Your task to perform on an android device: open app "Roku - Official Remote Control" (install if not already installed), go to login, and select forgot password Image 0: 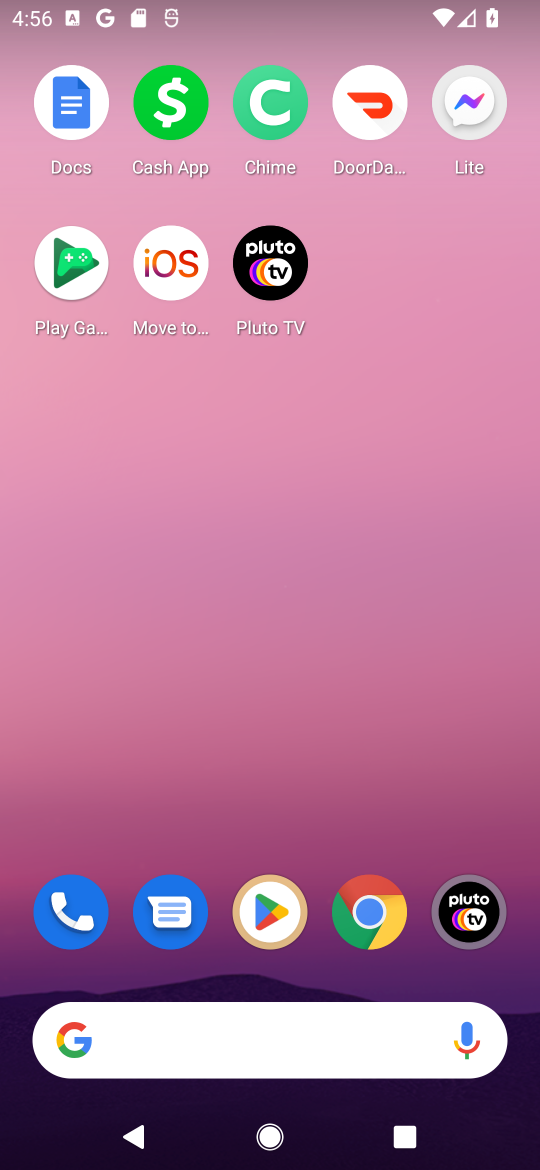
Step 0: drag from (275, 637) to (305, 95)
Your task to perform on an android device: open app "Roku - Official Remote Control" (install if not already installed), go to login, and select forgot password Image 1: 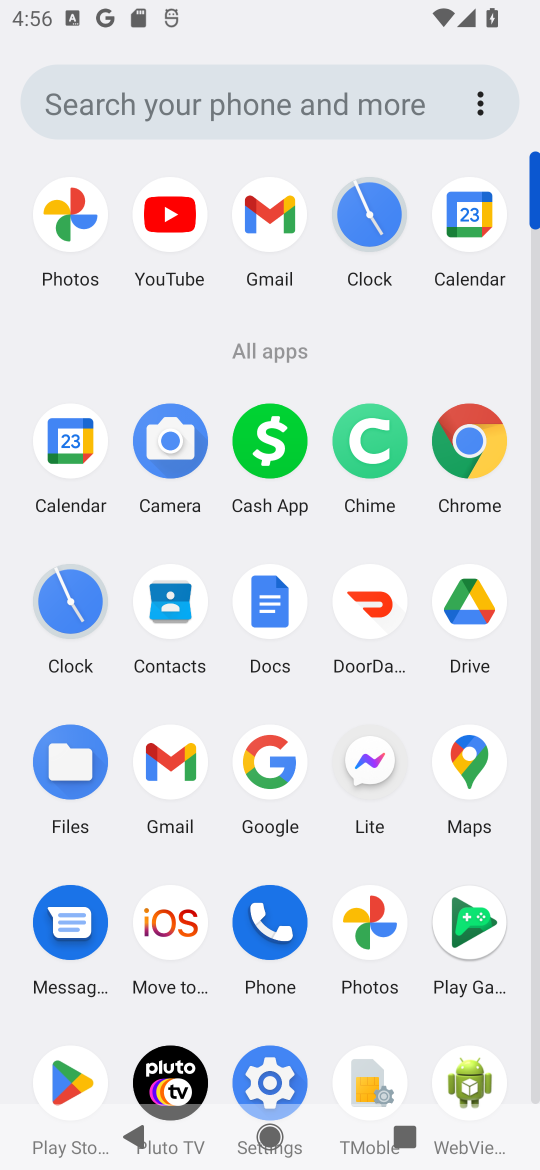
Step 1: click (57, 1071)
Your task to perform on an android device: open app "Roku - Official Remote Control" (install if not already installed), go to login, and select forgot password Image 2: 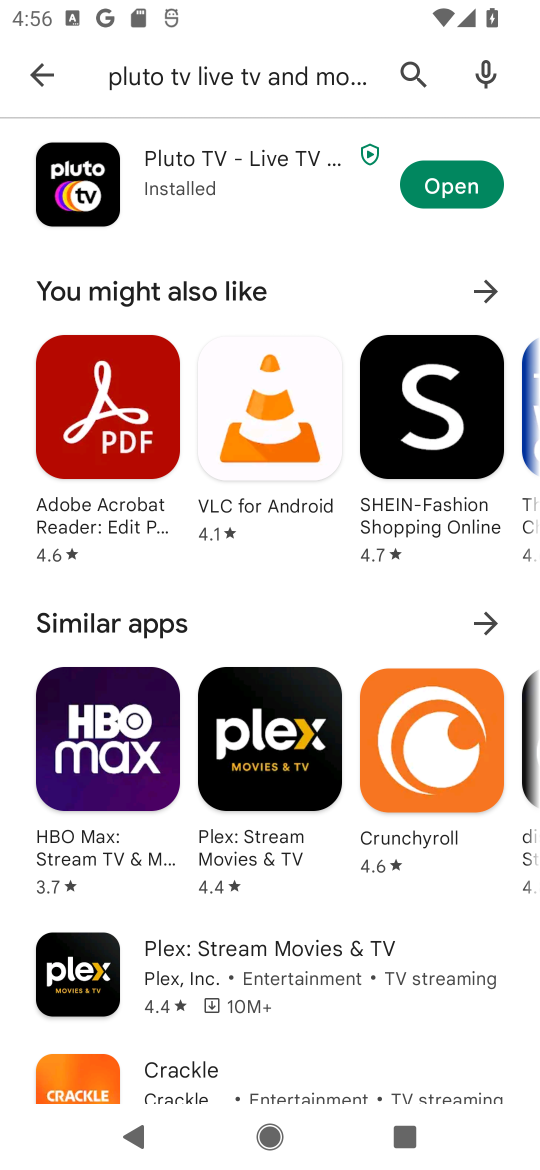
Step 2: click (48, 88)
Your task to perform on an android device: open app "Roku - Official Remote Control" (install if not already installed), go to login, and select forgot password Image 3: 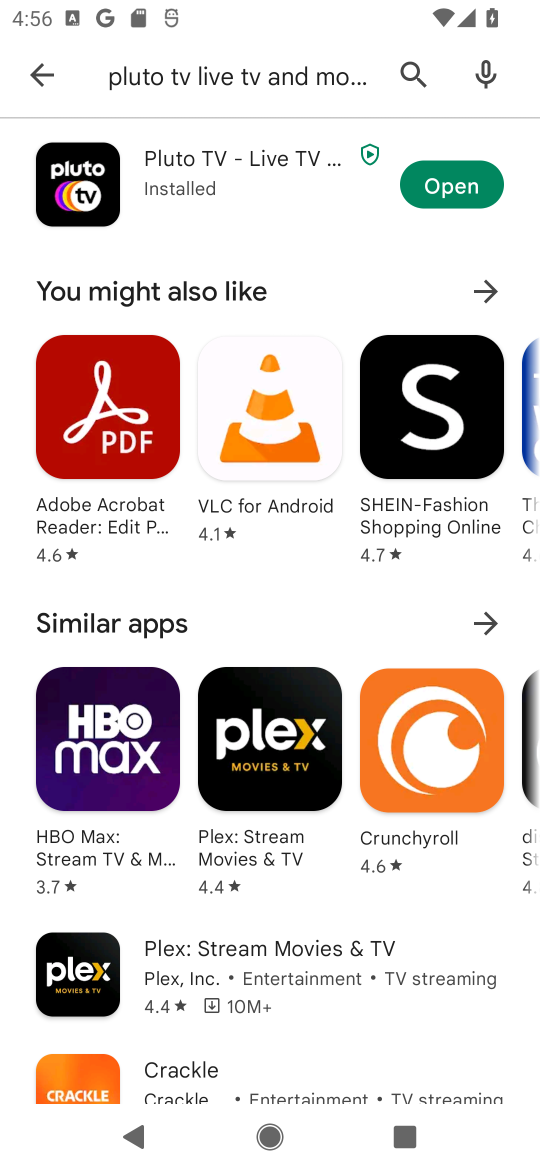
Step 3: click (35, 69)
Your task to perform on an android device: open app "Roku - Official Remote Control" (install if not already installed), go to login, and select forgot password Image 4: 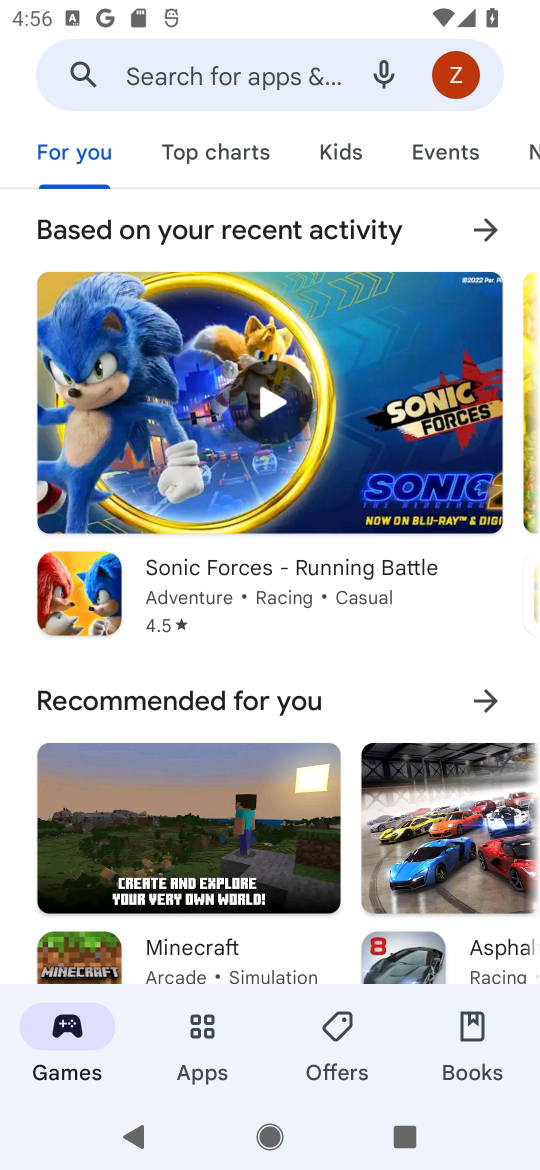
Step 4: click (210, 72)
Your task to perform on an android device: open app "Roku - Official Remote Control" (install if not already installed), go to login, and select forgot password Image 5: 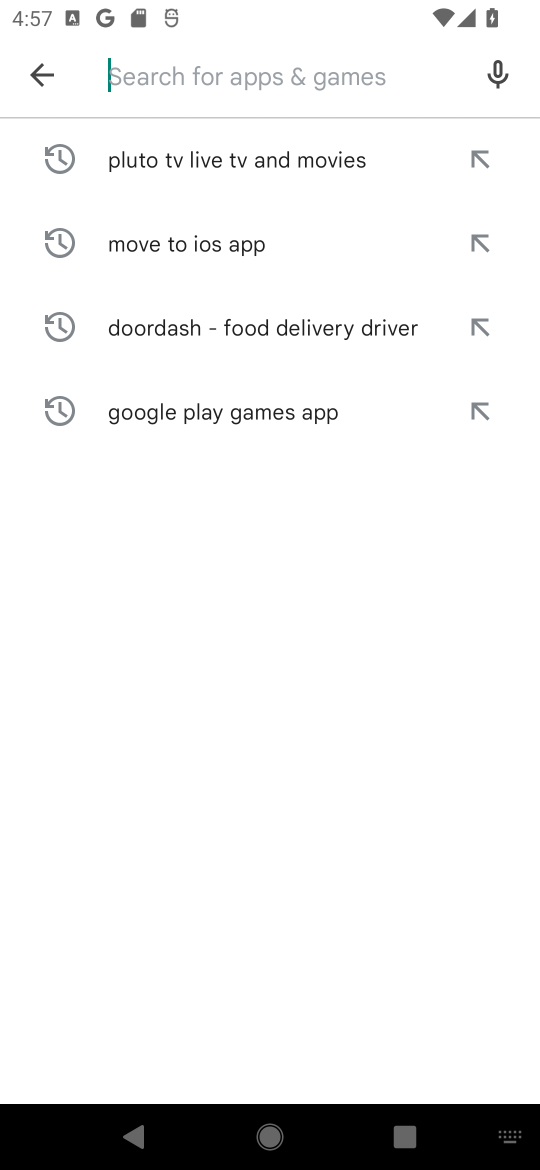
Step 5: type "Roku - Official Remote Control "
Your task to perform on an android device: open app "Roku - Official Remote Control" (install if not already installed), go to login, and select forgot password Image 6: 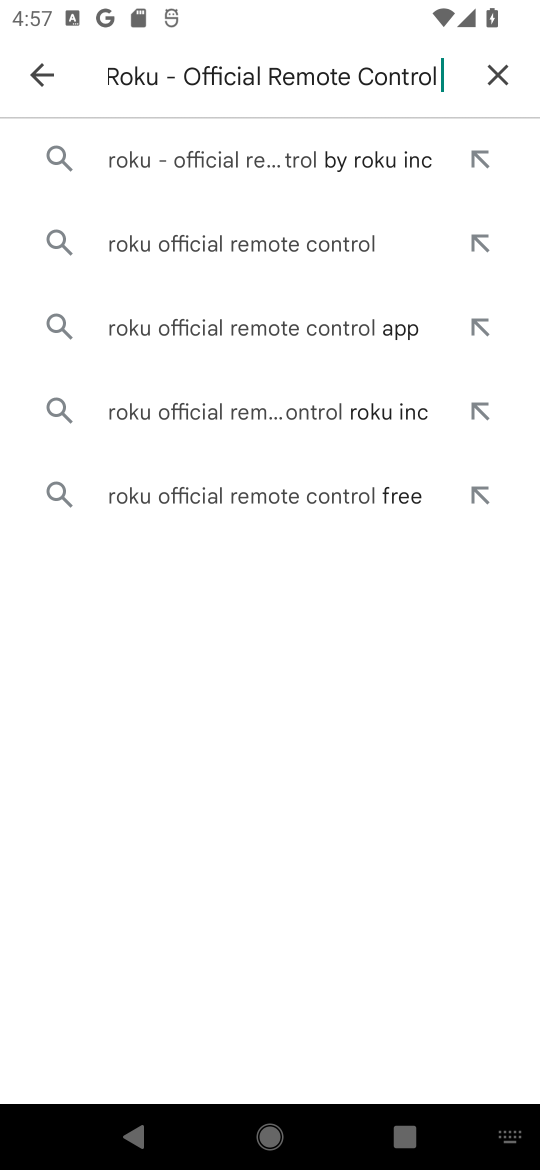
Step 6: click (265, 155)
Your task to perform on an android device: open app "Roku - Official Remote Control" (install if not already installed), go to login, and select forgot password Image 7: 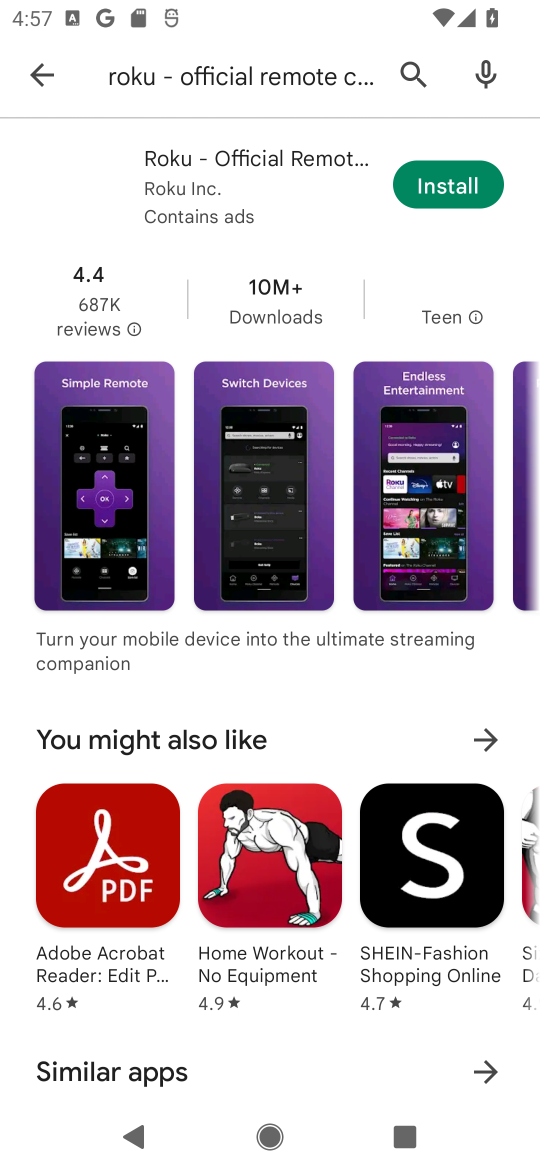
Step 7: click (416, 173)
Your task to perform on an android device: open app "Roku - Official Remote Control" (install if not already installed), go to login, and select forgot password Image 8: 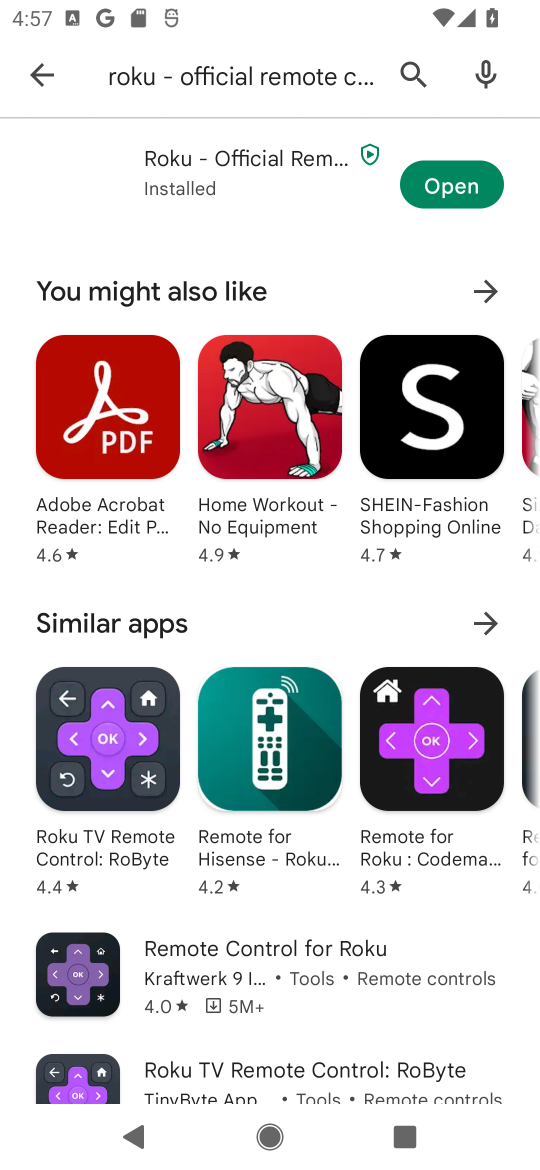
Step 8: click (435, 177)
Your task to perform on an android device: open app "Roku - Official Remote Control" (install if not already installed), go to login, and select forgot password Image 9: 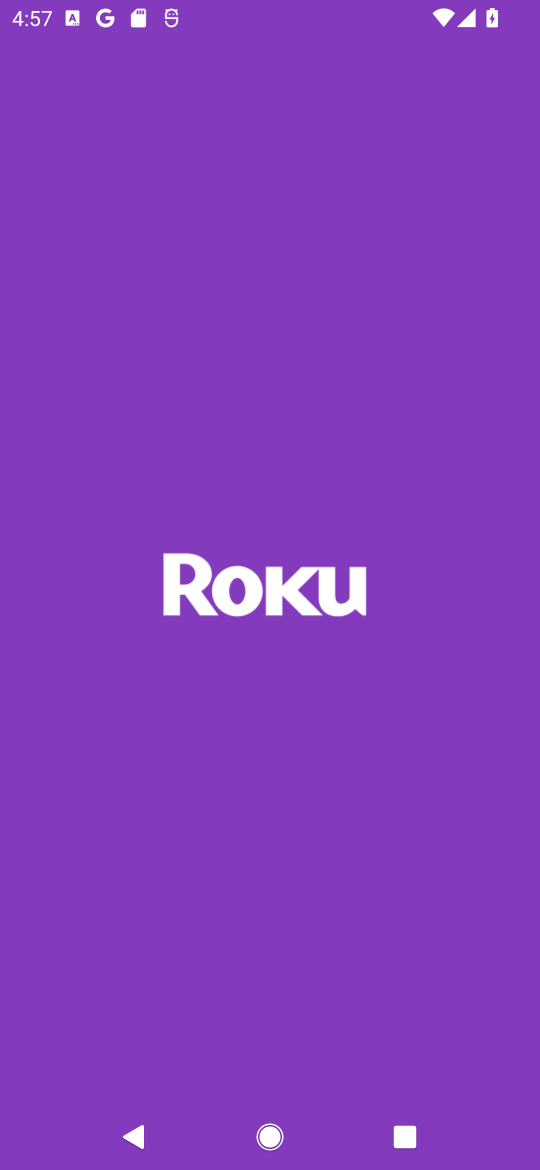
Step 9: task complete